Your task to perform on an android device: Set the phone to "Do not disturb". Image 0: 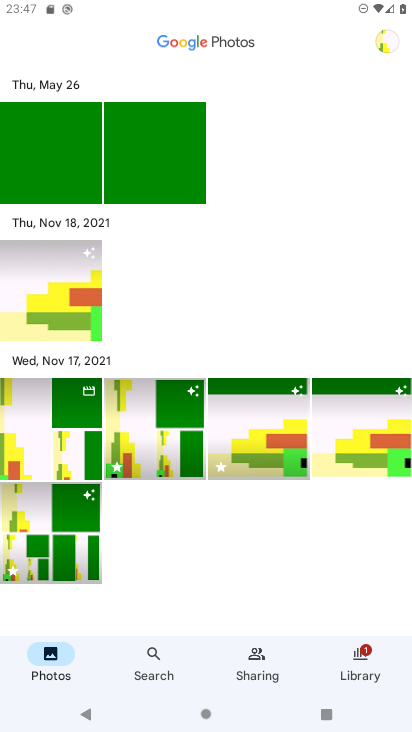
Step 0: press home button
Your task to perform on an android device: Set the phone to "Do not disturb". Image 1: 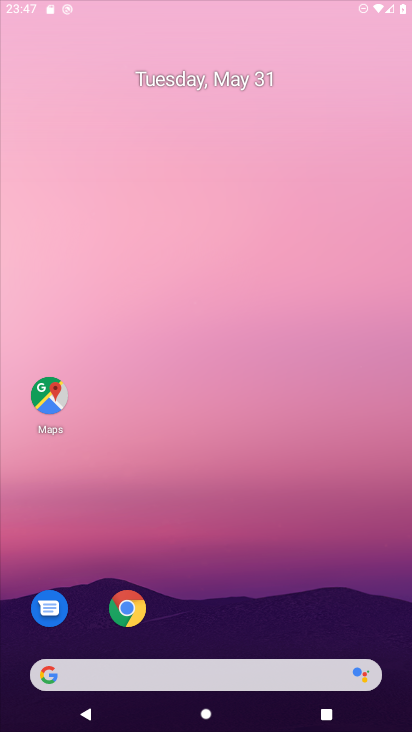
Step 1: task complete